Your task to perform on an android device: change alarm snooze length Image 0: 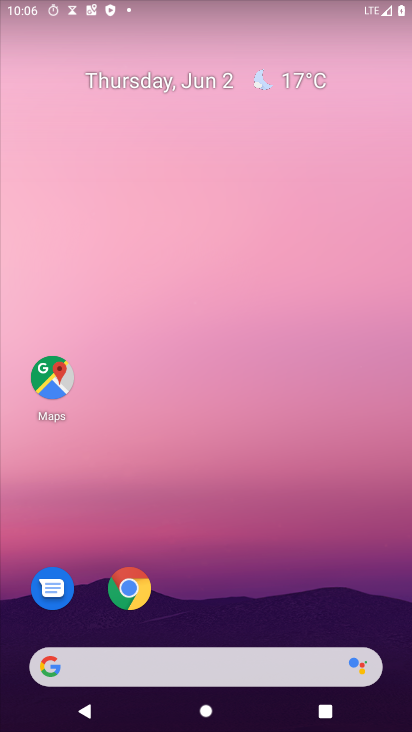
Step 0: drag from (259, 604) to (233, 56)
Your task to perform on an android device: change alarm snooze length Image 1: 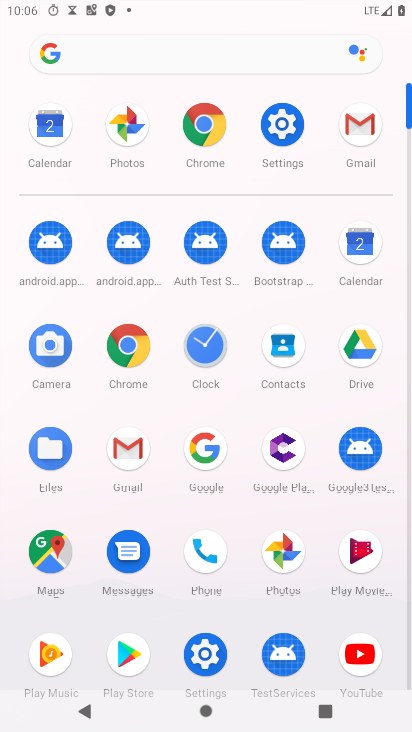
Step 1: click (213, 342)
Your task to perform on an android device: change alarm snooze length Image 2: 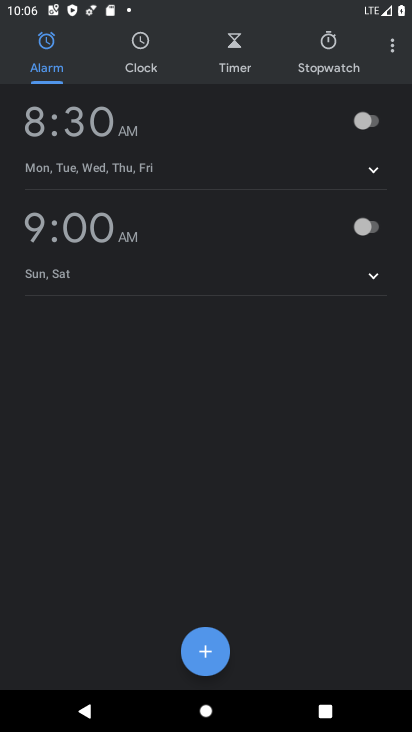
Step 2: click (390, 47)
Your task to perform on an android device: change alarm snooze length Image 3: 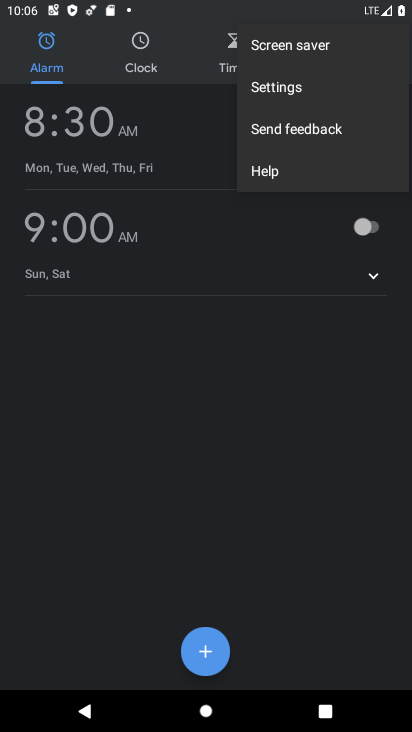
Step 3: click (274, 88)
Your task to perform on an android device: change alarm snooze length Image 4: 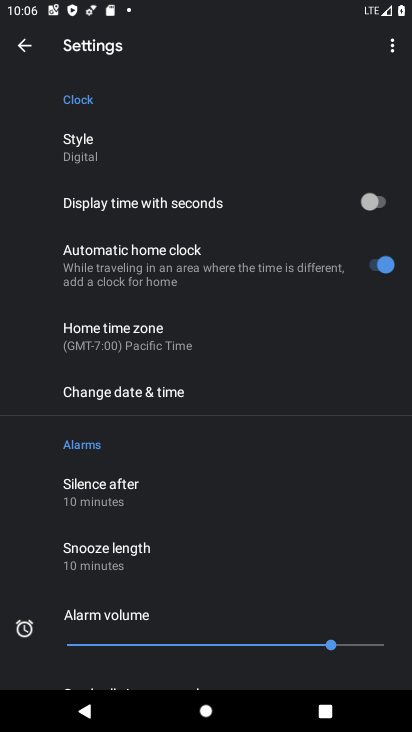
Step 4: click (124, 543)
Your task to perform on an android device: change alarm snooze length Image 5: 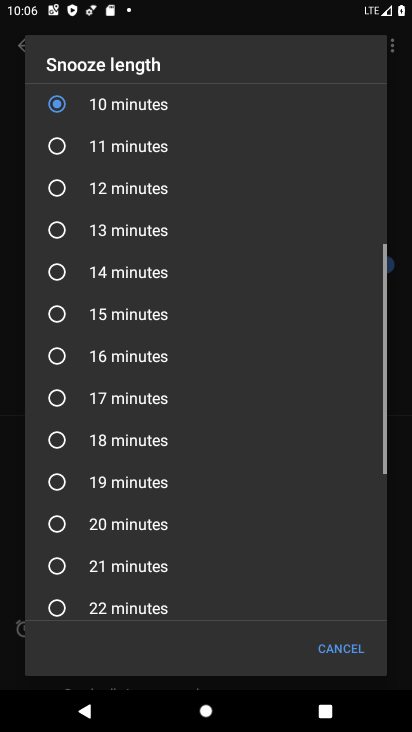
Step 5: click (58, 148)
Your task to perform on an android device: change alarm snooze length Image 6: 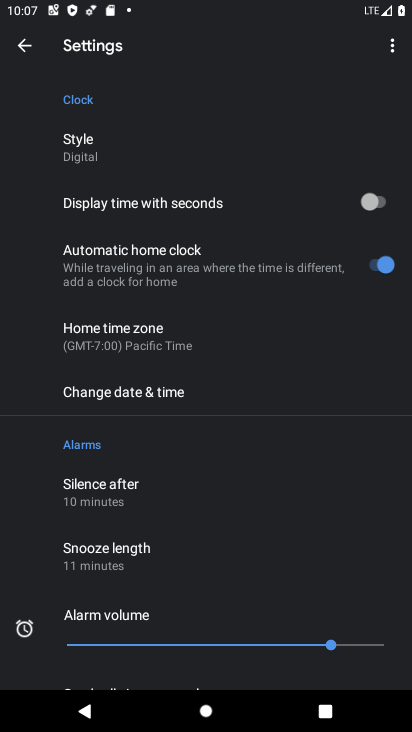
Step 6: task complete